Your task to perform on an android device: Open calendar and show me the fourth week of next month Image 0: 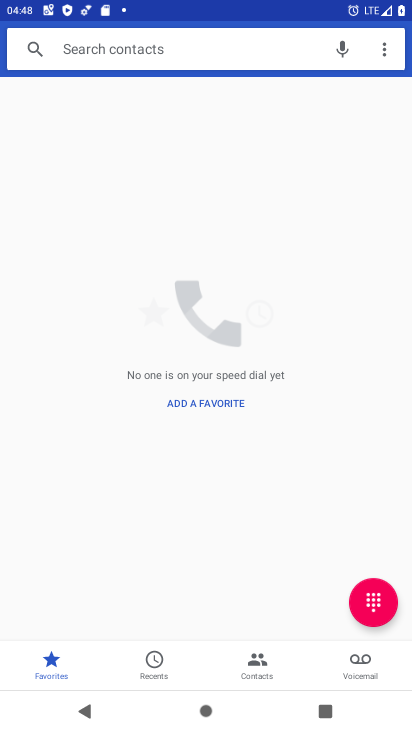
Step 0: press back button
Your task to perform on an android device: Open calendar and show me the fourth week of next month Image 1: 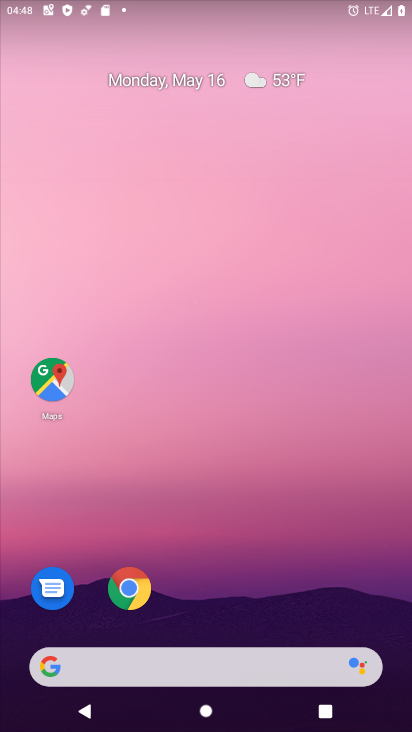
Step 1: drag from (242, 553) to (243, 6)
Your task to perform on an android device: Open calendar and show me the fourth week of next month Image 2: 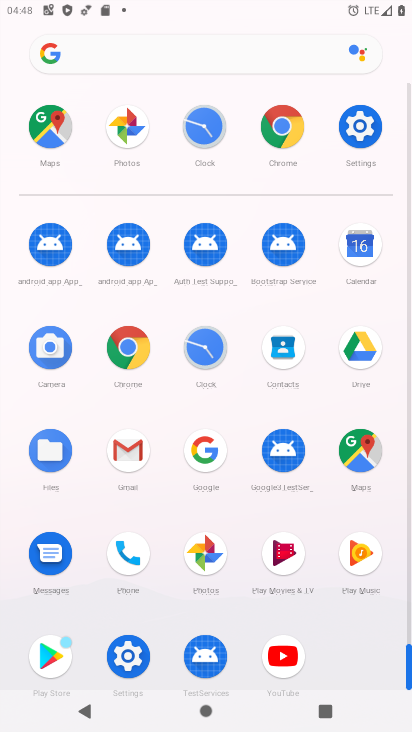
Step 2: click (363, 239)
Your task to perform on an android device: Open calendar and show me the fourth week of next month Image 3: 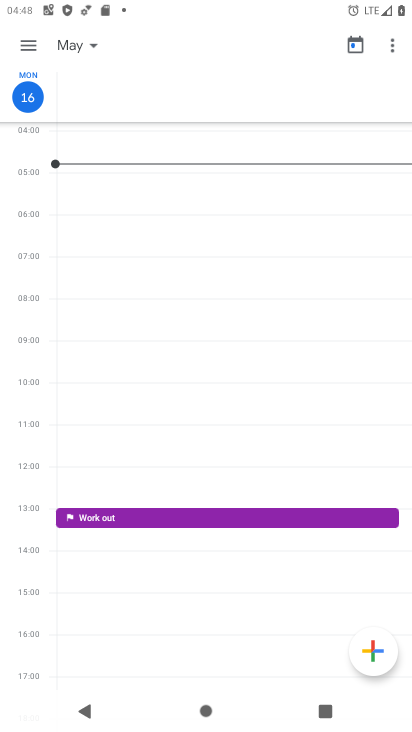
Step 3: press back button
Your task to perform on an android device: Open calendar and show me the fourth week of next month Image 4: 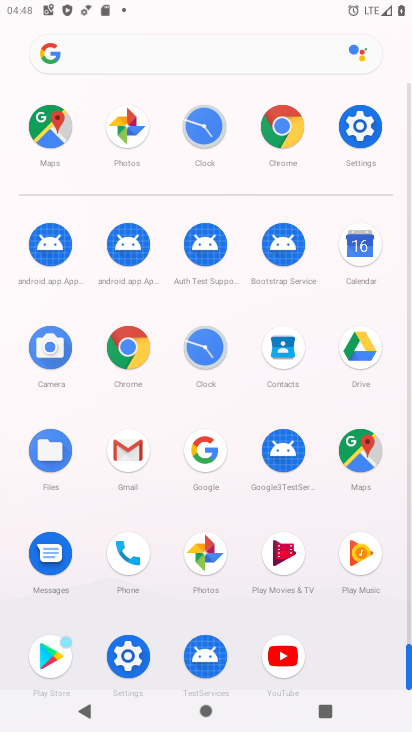
Step 4: click (358, 239)
Your task to perform on an android device: Open calendar and show me the fourth week of next month Image 5: 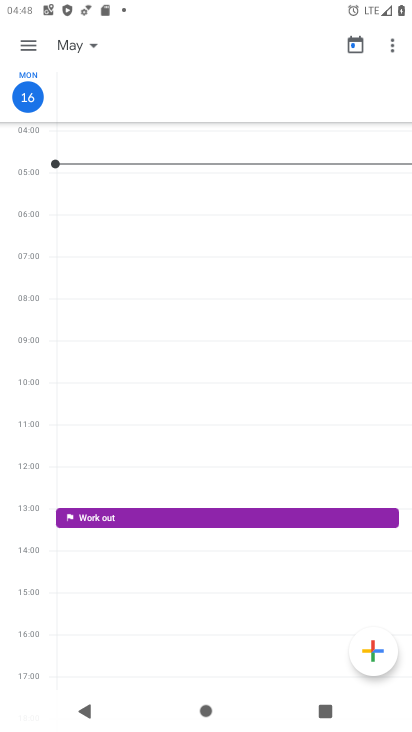
Step 5: click (89, 39)
Your task to perform on an android device: Open calendar and show me the fourth week of next month Image 6: 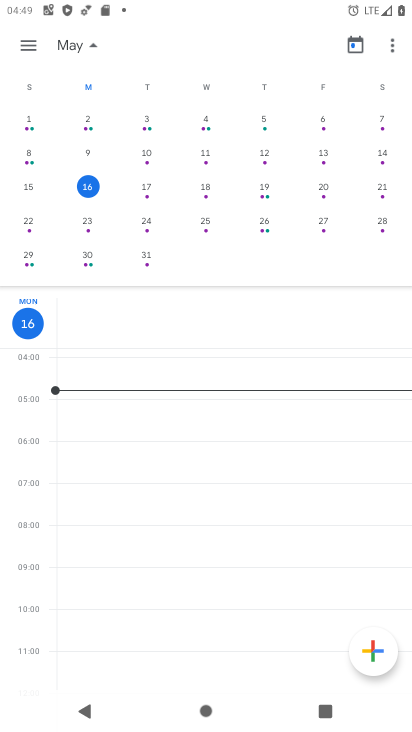
Step 6: drag from (355, 171) to (0, 106)
Your task to perform on an android device: Open calendar and show me the fourth week of next month Image 7: 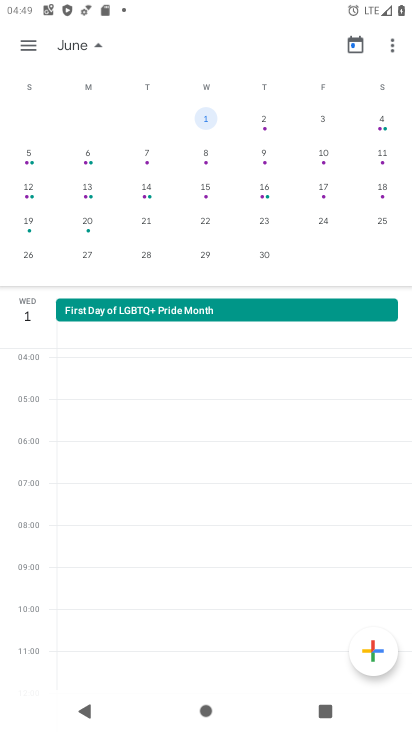
Step 7: click (31, 221)
Your task to perform on an android device: Open calendar and show me the fourth week of next month Image 8: 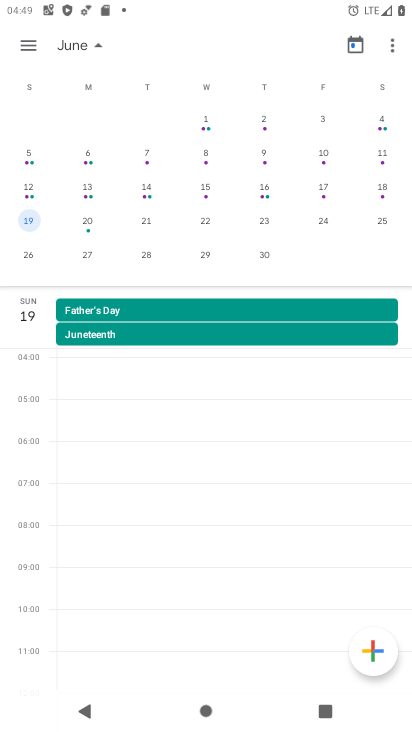
Step 8: click (25, 47)
Your task to perform on an android device: Open calendar and show me the fourth week of next month Image 9: 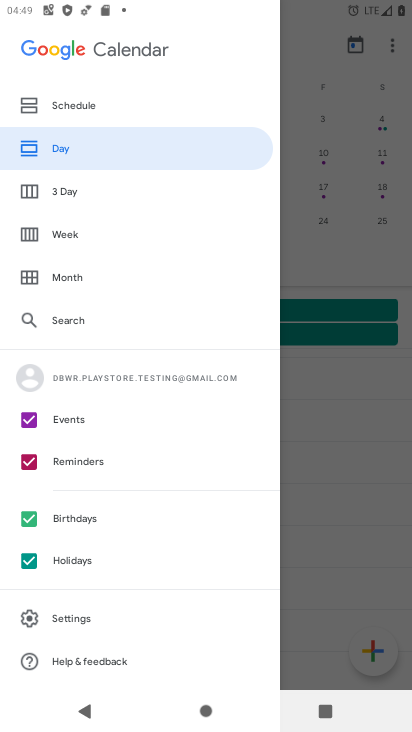
Step 9: click (85, 231)
Your task to perform on an android device: Open calendar and show me the fourth week of next month Image 10: 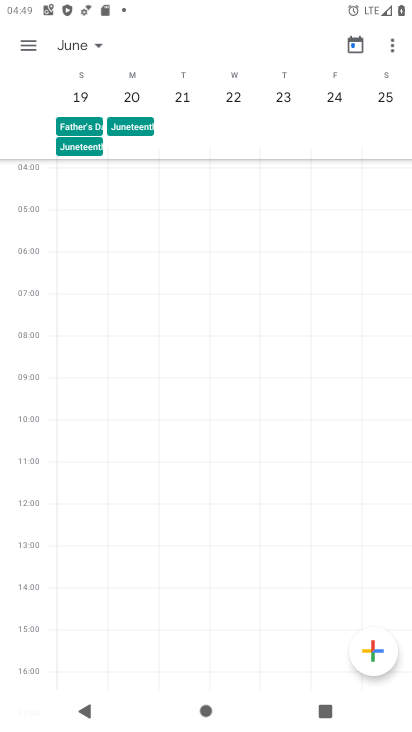
Step 10: task complete